Your task to perform on an android device: Clear the cart on newegg.com. Add logitech g933 to the cart on newegg.com, then select checkout. Image 0: 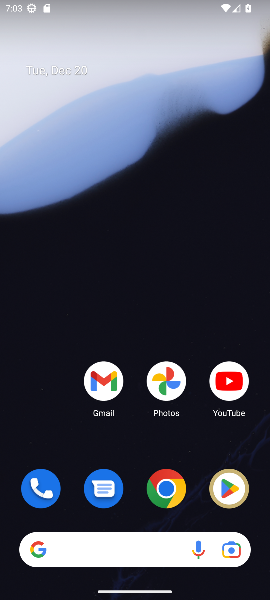
Step 0: press home button
Your task to perform on an android device: Clear the cart on newegg.com. Add logitech g933 to the cart on newegg.com, then select checkout. Image 1: 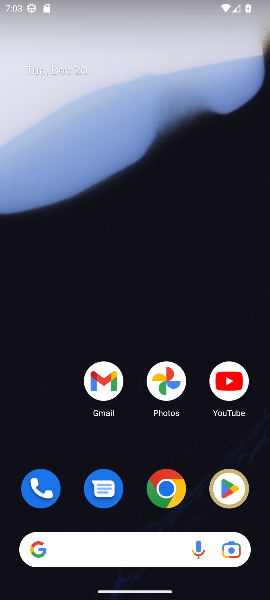
Step 1: drag from (52, 429) to (35, 37)
Your task to perform on an android device: Clear the cart on newegg.com. Add logitech g933 to the cart on newegg.com, then select checkout. Image 2: 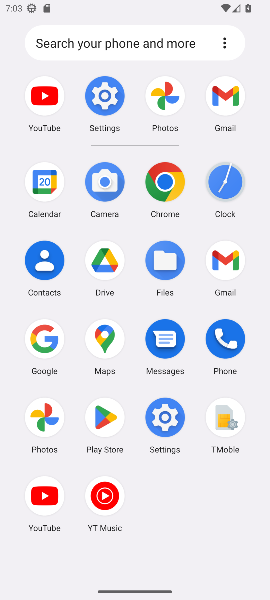
Step 2: click (20, 348)
Your task to perform on an android device: Clear the cart on newegg.com. Add logitech g933 to the cart on newegg.com, then select checkout. Image 3: 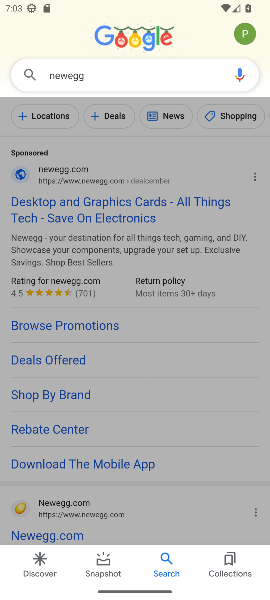
Step 3: click (99, 74)
Your task to perform on an android device: Clear the cart on newegg.com. Add logitech g933 to the cart on newegg.com, then select checkout. Image 4: 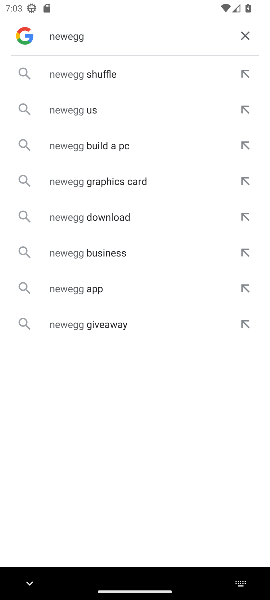
Step 4: click (244, 35)
Your task to perform on an android device: Clear the cart on newegg.com. Add logitech g933 to the cart on newegg.com, then select checkout. Image 5: 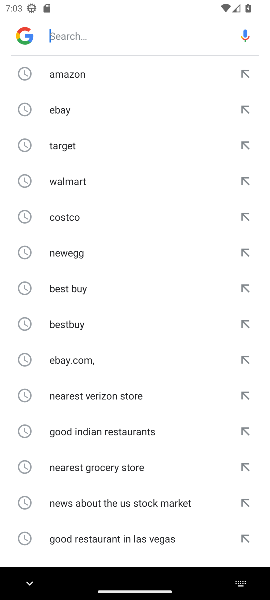
Step 5: type "newegg.com"
Your task to perform on an android device: Clear the cart on newegg.com. Add logitech g933 to the cart on newegg.com, then select checkout. Image 6: 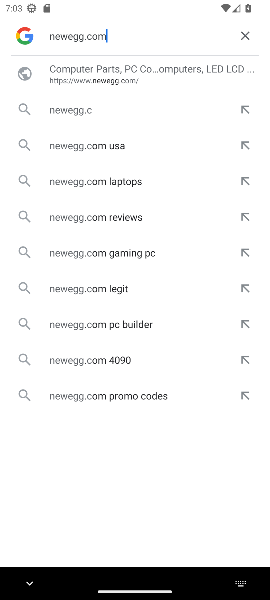
Step 6: press enter
Your task to perform on an android device: Clear the cart on newegg.com. Add logitech g933 to the cart on newegg.com, then select checkout. Image 7: 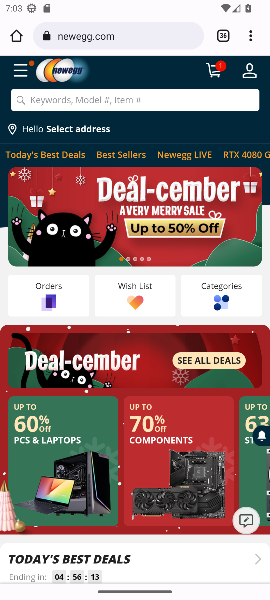
Step 7: click (215, 68)
Your task to perform on an android device: Clear the cart on newegg.com. Add logitech g933 to the cart on newegg.com, then select checkout. Image 8: 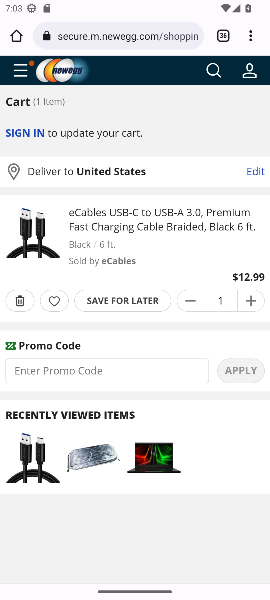
Step 8: click (15, 303)
Your task to perform on an android device: Clear the cart on newegg.com. Add logitech g933 to the cart on newegg.com, then select checkout. Image 9: 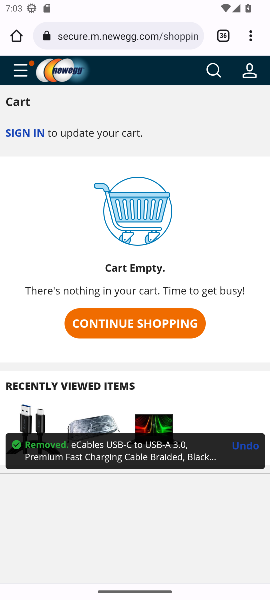
Step 9: click (209, 68)
Your task to perform on an android device: Clear the cart on newegg.com. Add logitech g933 to the cart on newegg.com, then select checkout. Image 10: 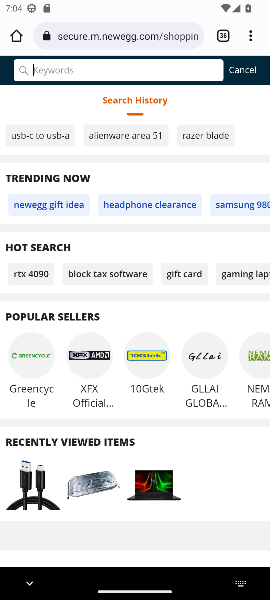
Step 10: type "logitech g933"
Your task to perform on an android device: Clear the cart on newegg.com. Add logitech g933 to the cart on newegg.com, then select checkout. Image 11: 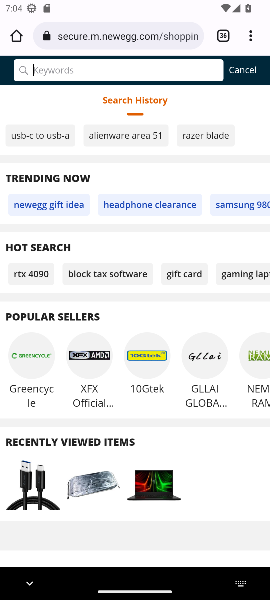
Step 11: press enter
Your task to perform on an android device: Clear the cart on newegg.com. Add logitech g933 to the cart on newegg.com, then select checkout. Image 12: 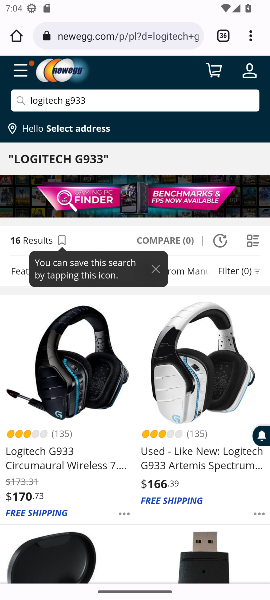
Step 12: click (44, 457)
Your task to perform on an android device: Clear the cart on newegg.com. Add logitech g933 to the cart on newegg.com, then select checkout. Image 13: 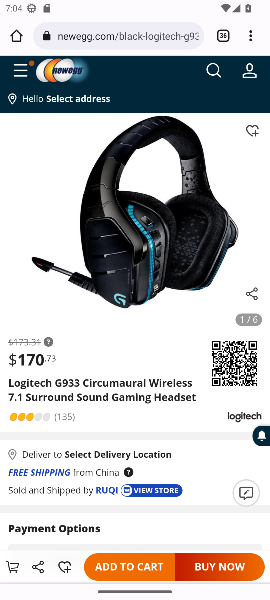
Step 13: click (110, 567)
Your task to perform on an android device: Clear the cart on newegg.com. Add logitech g933 to the cart on newegg.com, then select checkout. Image 14: 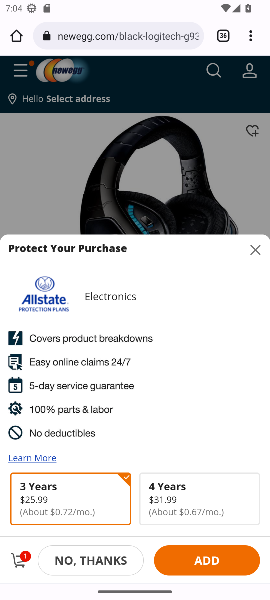
Step 14: click (256, 248)
Your task to perform on an android device: Clear the cart on newegg.com. Add logitech g933 to the cart on newegg.com, then select checkout. Image 15: 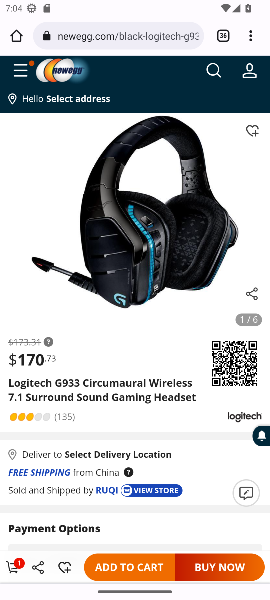
Step 15: click (12, 566)
Your task to perform on an android device: Clear the cart on newegg.com. Add logitech g933 to the cart on newegg.com, then select checkout. Image 16: 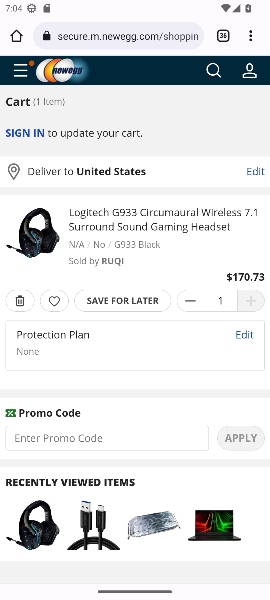
Step 16: drag from (131, 502) to (128, 277)
Your task to perform on an android device: Clear the cart on newegg.com. Add logitech g933 to the cart on newegg.com, then select checkout. Image 17: 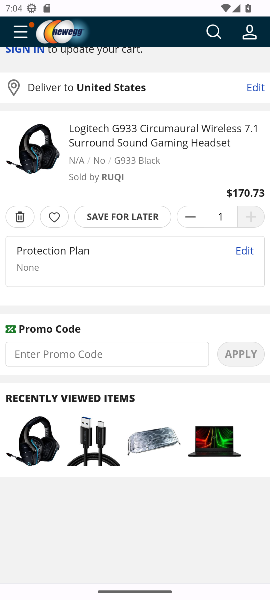
Step 17: drag from (151, 269) to (180, 550)
Your task to perform on an android device: Clear the cart on newegg.com. Add logitech g933 to the cart on newegg.com, then select checkout. Image 18: 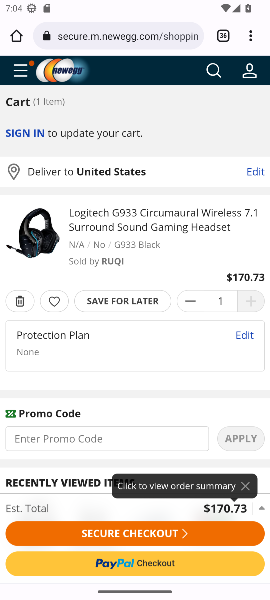
Step 18: click (123, 535)
Your task to perform on an android device: Clear the cart on newegg.com. Add logitech g933 to the cart on newegg.com, then select checkout. Image 19: 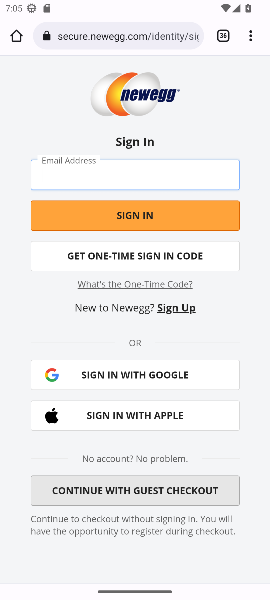
Step 19: task complete